Your task to perform on an android device: Open Chrome and go to settings Image 0: 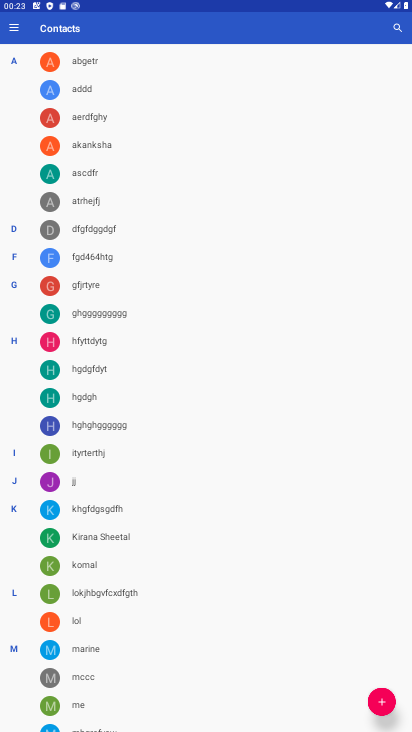
Step 0: press home button
Your task to perform on an android device: Open Chrome and go to settings Image 1: 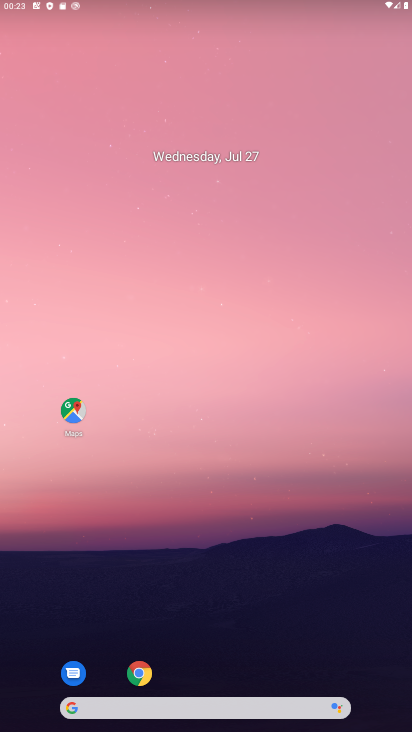
Step 1: drag from (309, 385) to (326, 23)
Your task to perform on an android device: Open Chrome and go to settings Image 2: 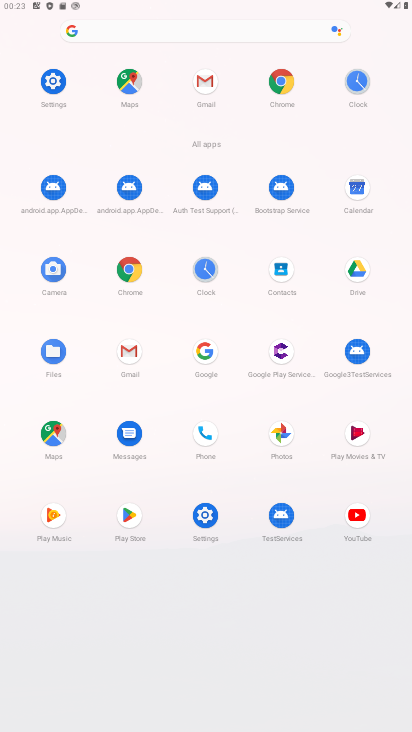
Step 2: click (280, 75)
Your task to perform on an android device: Open Chrome and go to settings Image 3: 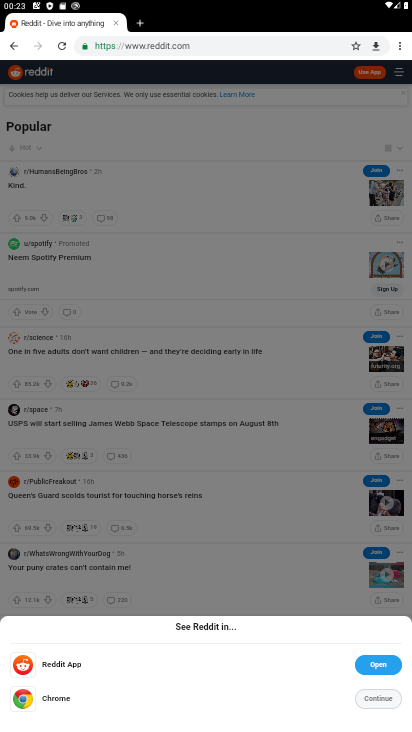
Step 3: task complete